Your task to perform on an android device: check android version Image 0: 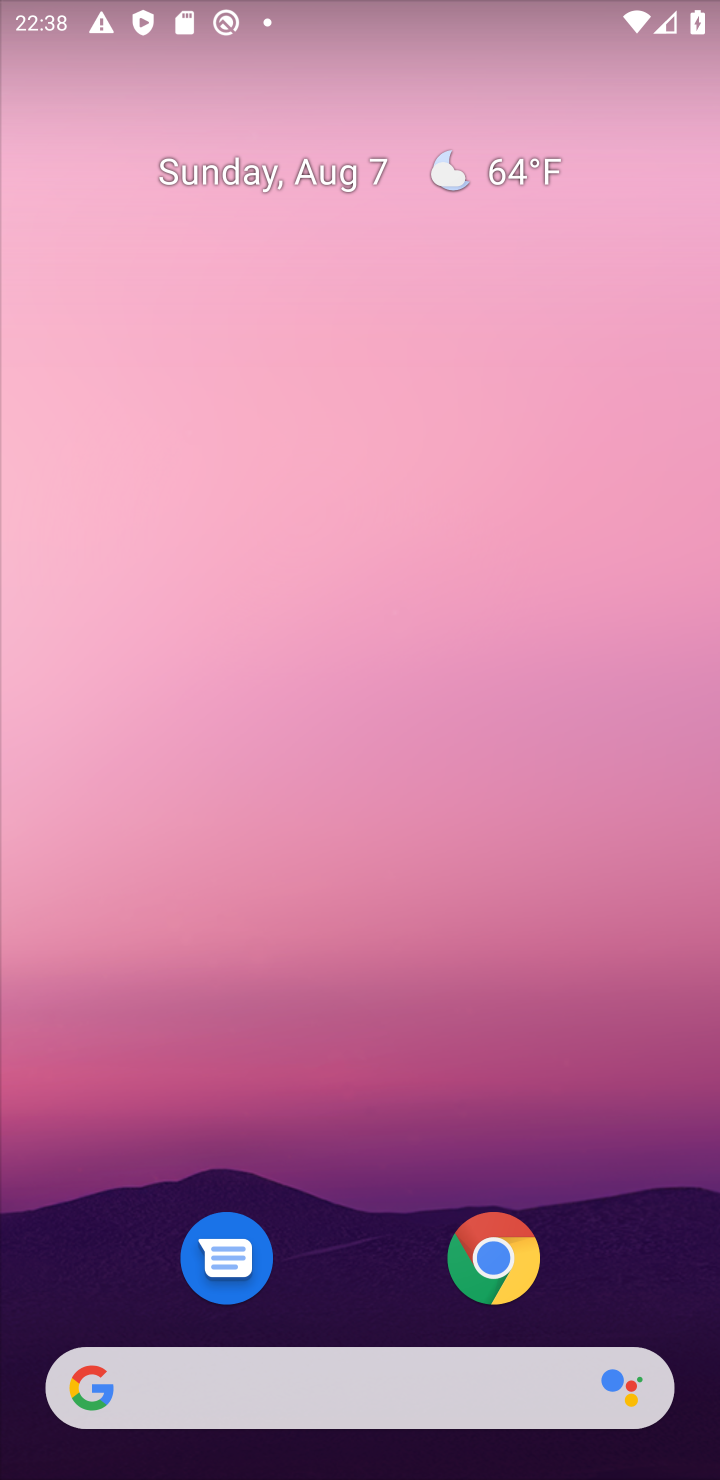
Step 0: press home button
Your task to perform on an android device: check android version Image 1: 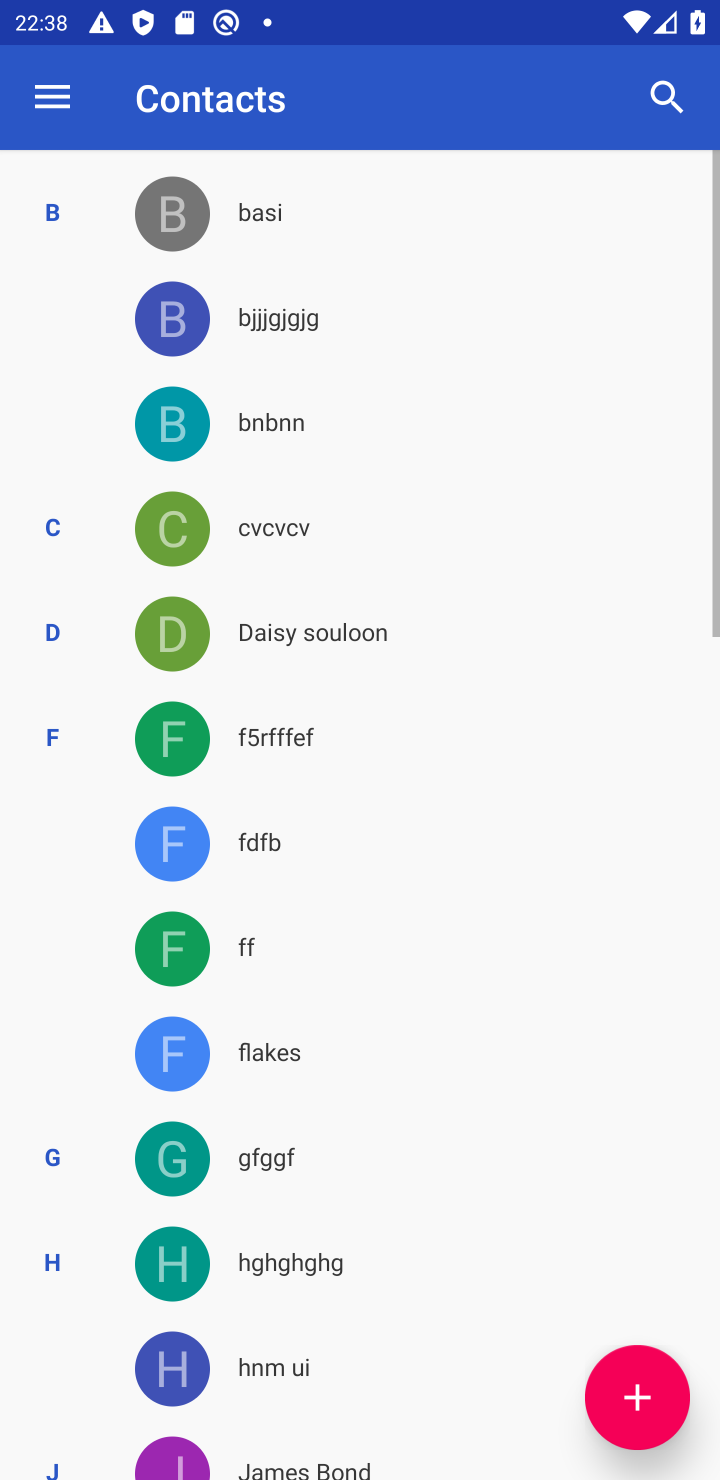
Step 1: drag from (377, 1149) to (413, 16)
Your task to perform on an android device: check android version Image 2: 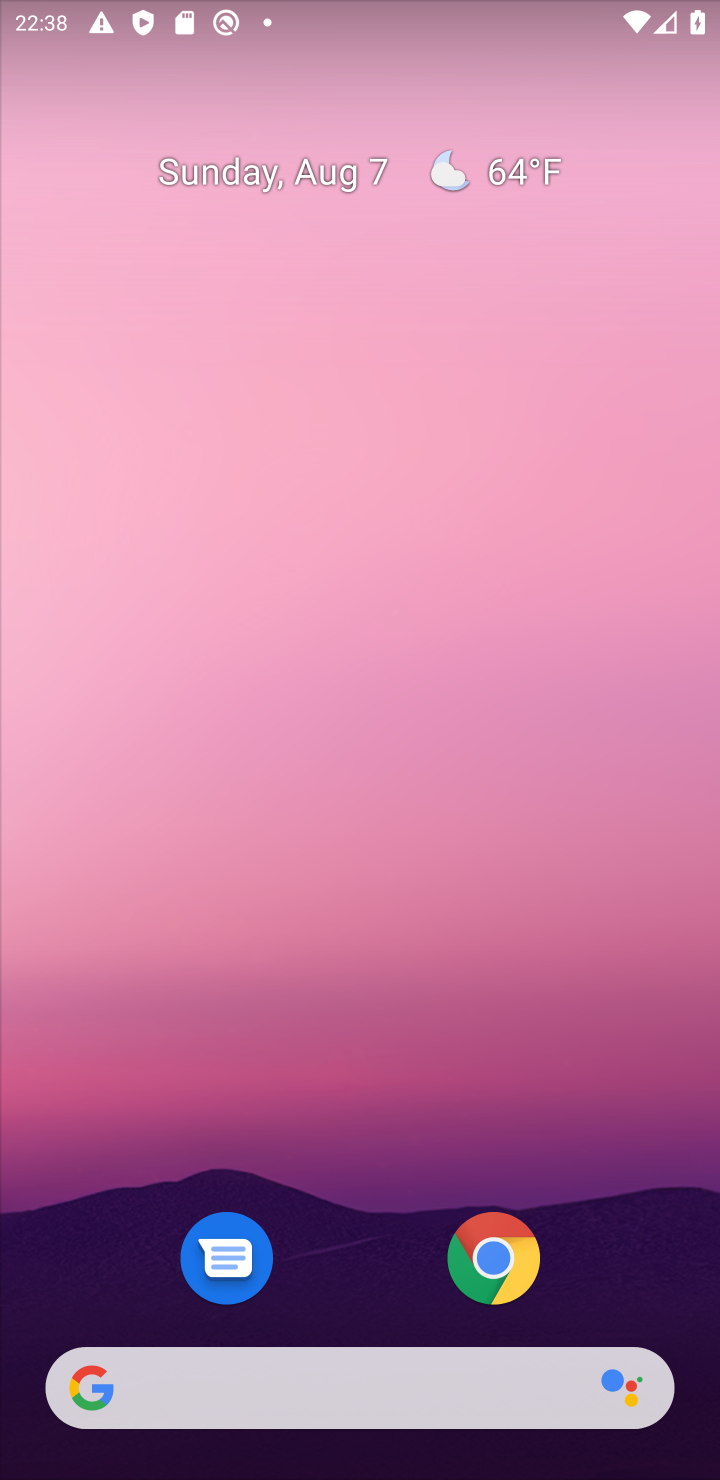
Step 2: drag from (468, 1143) to (475, 180)
Your task to perform on an android device: check android version Image 3: 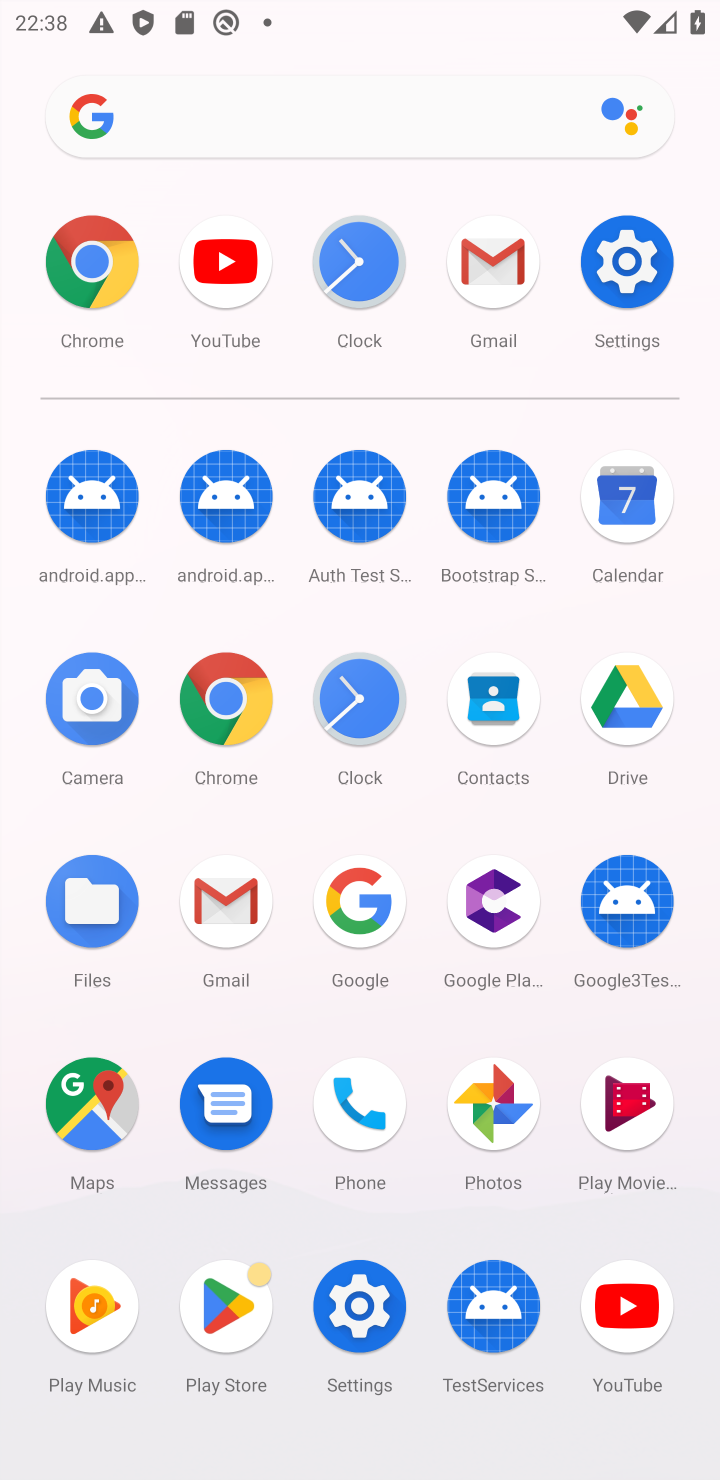
Step 3: click (629, 283)
Your task to perform on an android device: check android version Image 4: 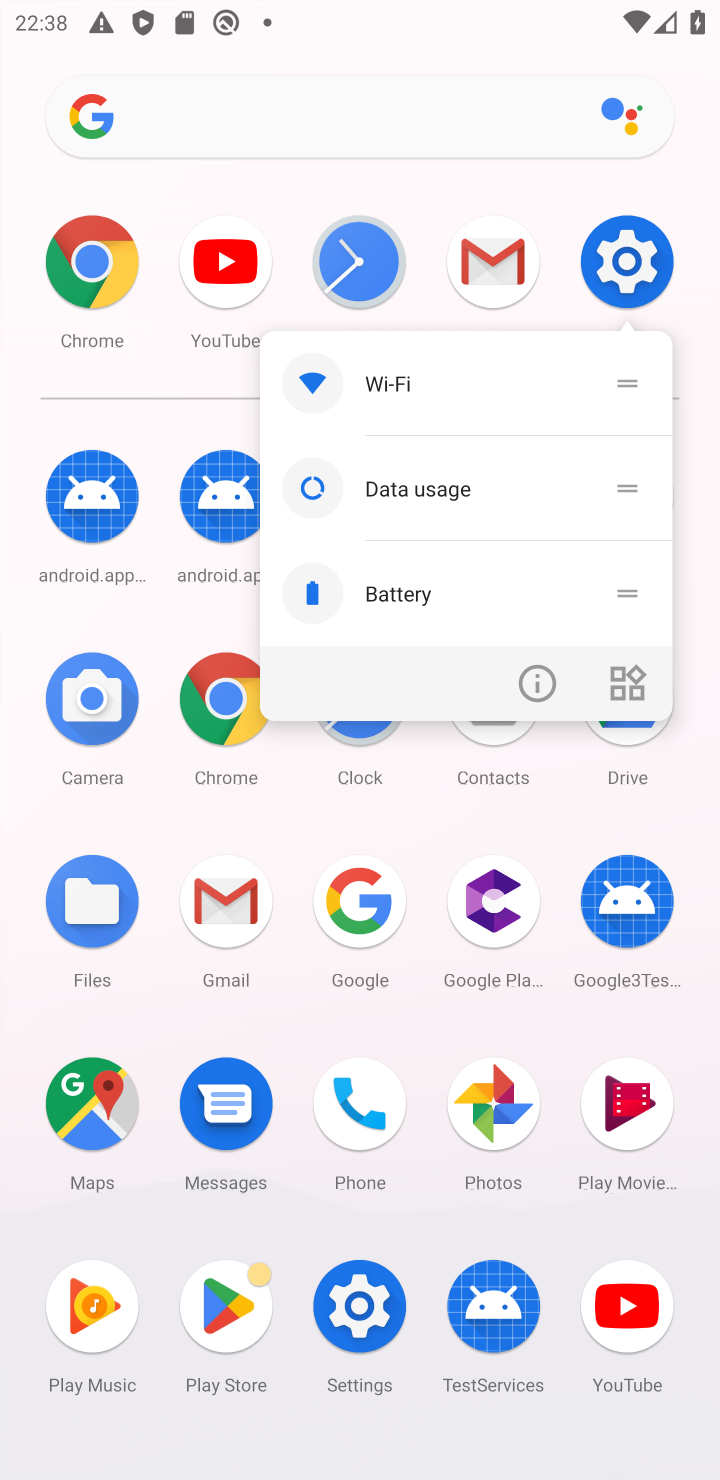
Step 4: click (360, 1271)
Your task to perform on an android device: check android version Image 5: 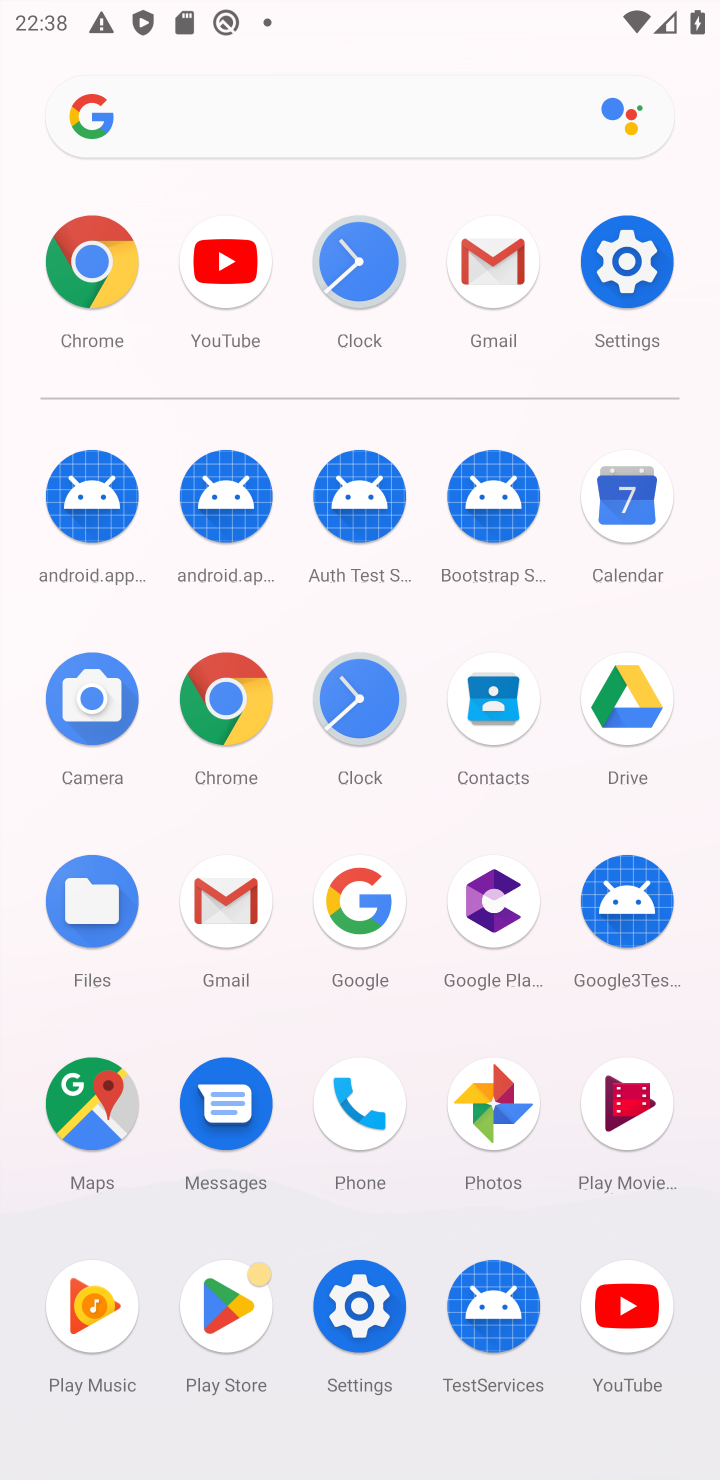
Step 5: click (353, 1299)
Your task to perform on an android device: check android version Image 6: 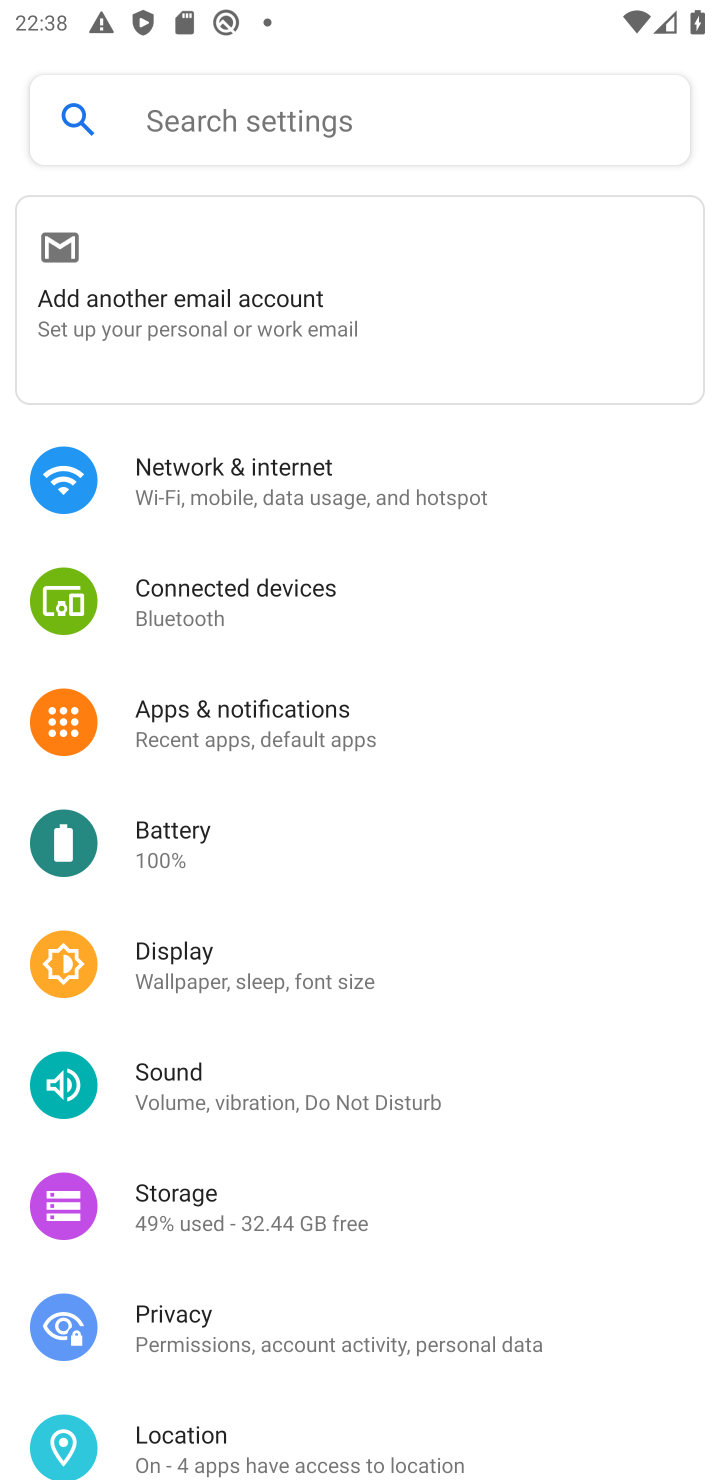
Step 6: drag from (302, 951) to (305, 0)
Your task to perform on an android device: check android version Image 7: 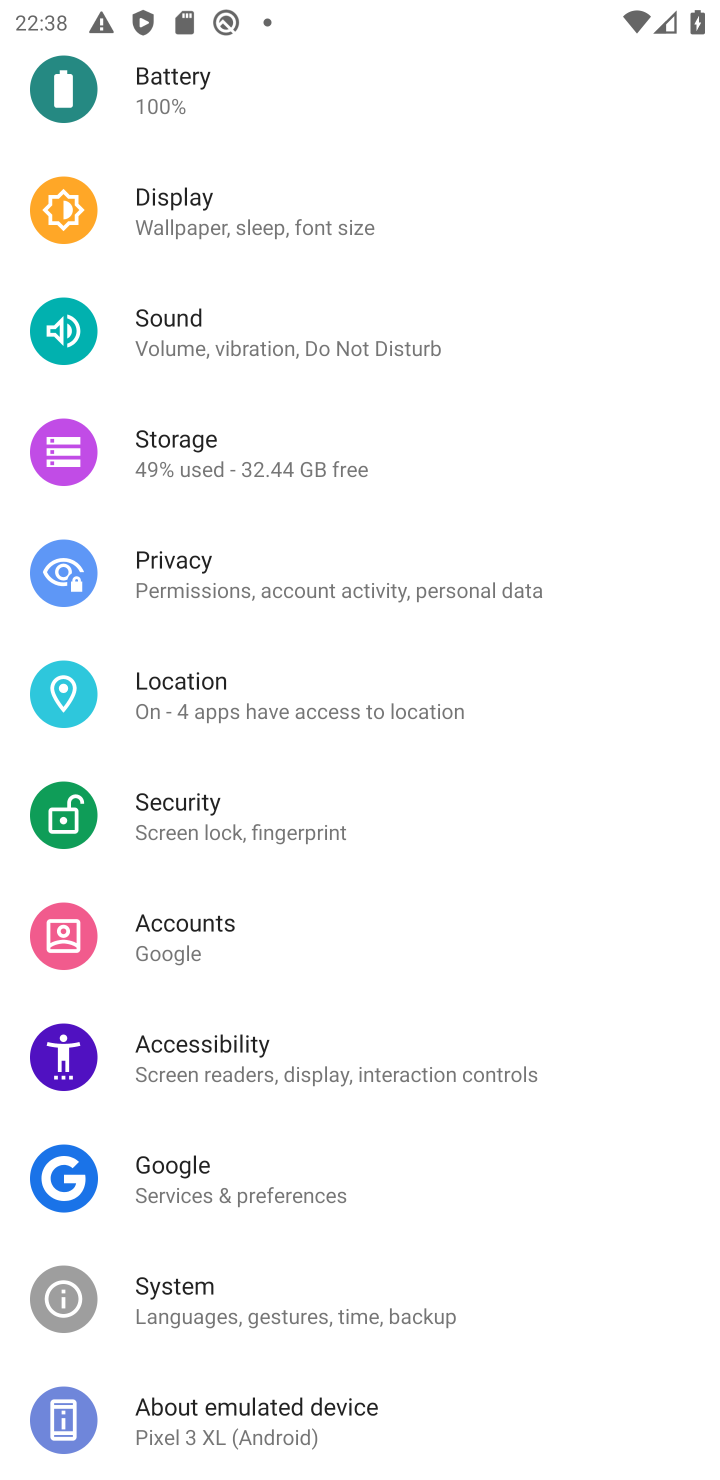
Step 7: click (309, 1406)
Your task to perform on an android device: check android version Image 8: 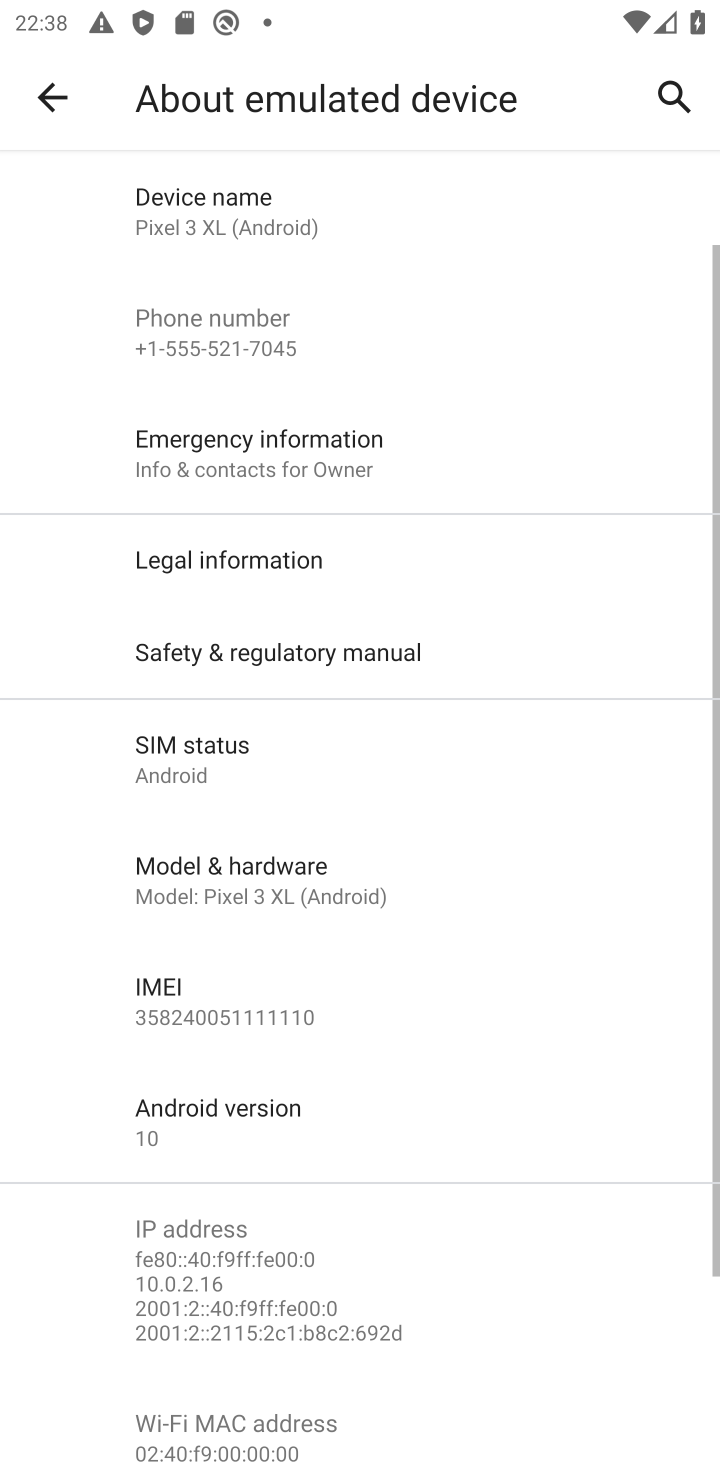
Step 8: click (269, 1148)
Your task to perform on an android device: check android version Image 9: 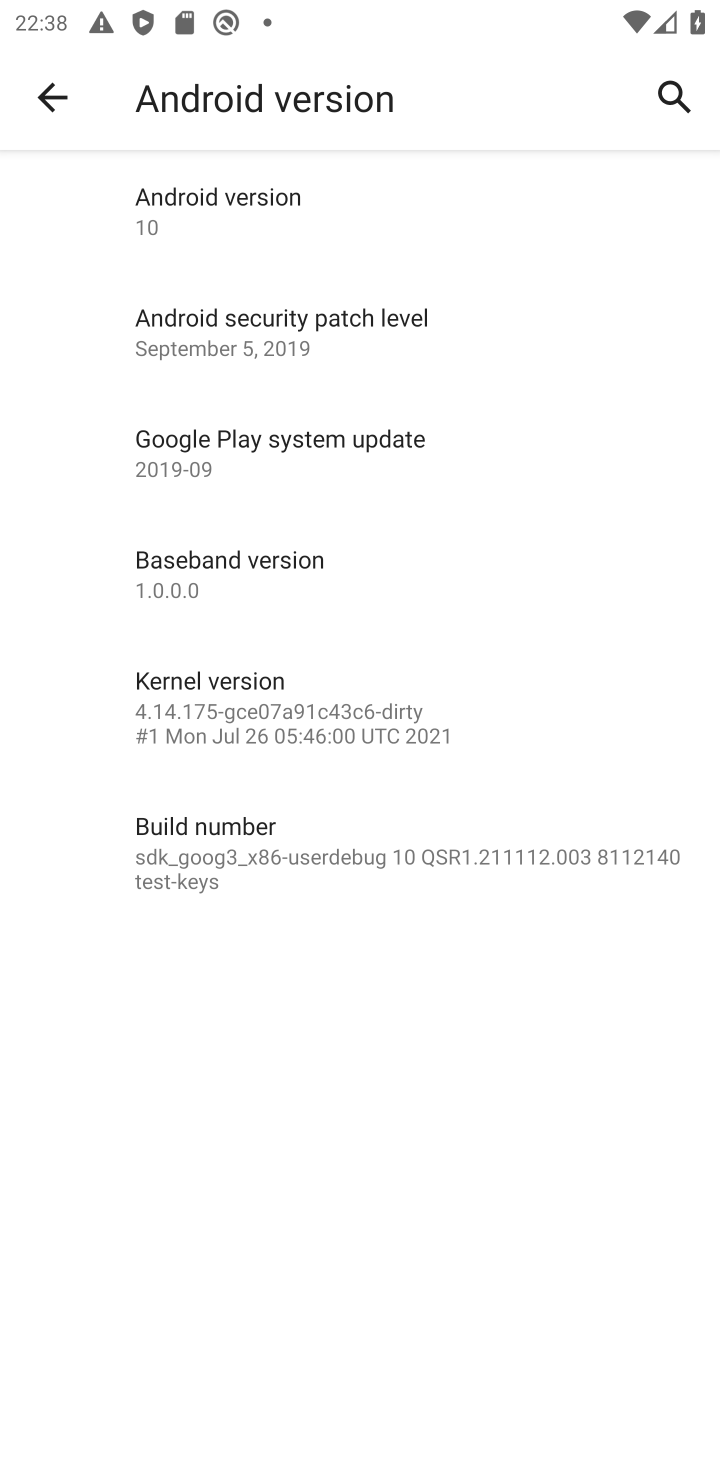
Step 9: task complete